Your task to perform on an android device: Search for pizza restaurants on Maps Image 0: 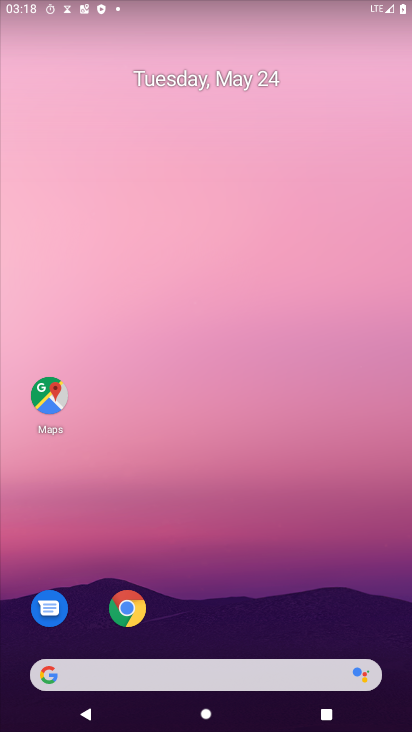
Step 0: click (64, 394)
Your task to perform on an android device: Search for pizza restaurants on Maps Image 1: 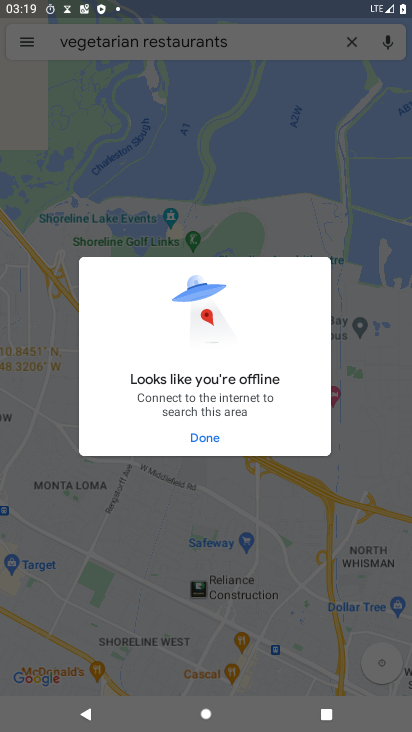
Step 1: click (210, 435)
Your task to perform on an android device: Search for pizza restaurants on Maps Image 2: 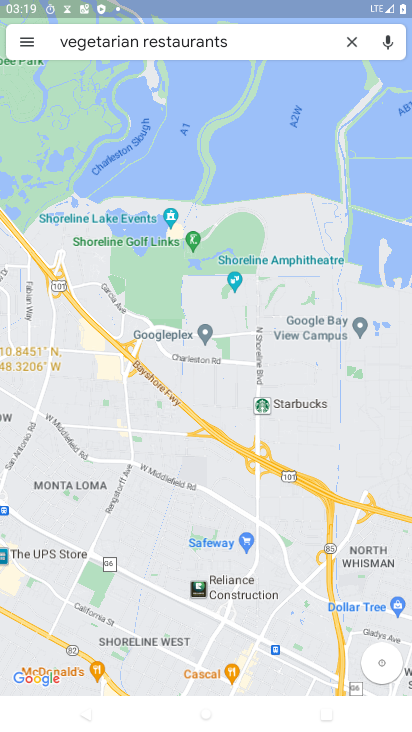
Step 2: click (357, 45)
Your task to perform on an android device: Search for pizza restaurants on Maps Image 3: 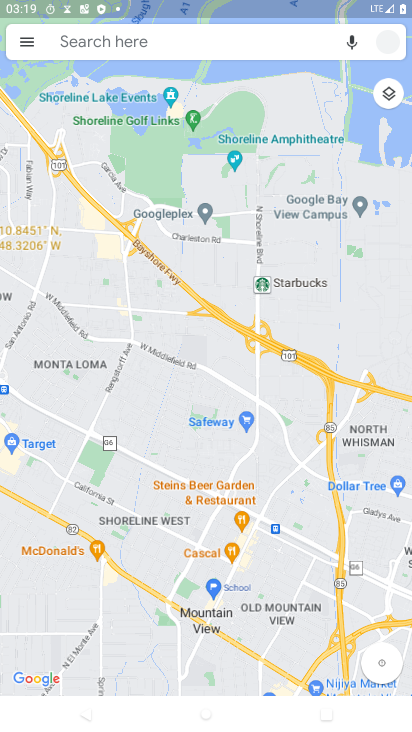
Step 3: click (232, 50)
Your task to perform on an android device: Search for pizza restaurants on Maps Image 4: 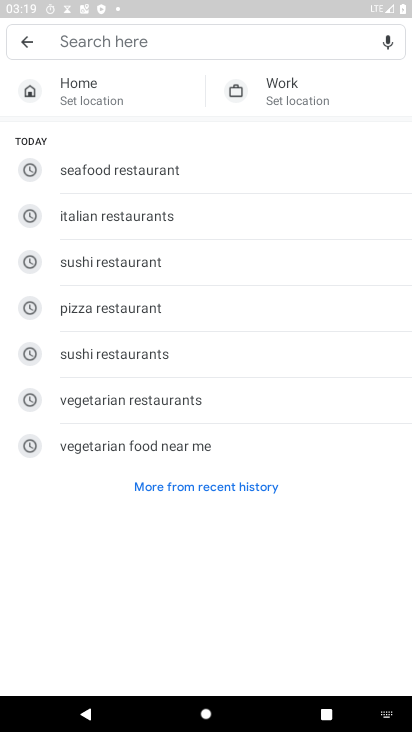
Step 4: click (216, 305)
Your task to perform on an android device: Search for pizza restaurants on Maps Image 5: 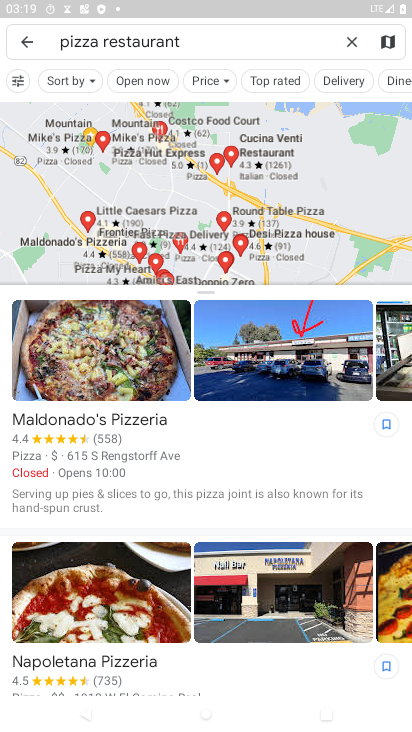
Step 5: task complete